Your task to perform on an android device: turn off airplane mode Image 0: 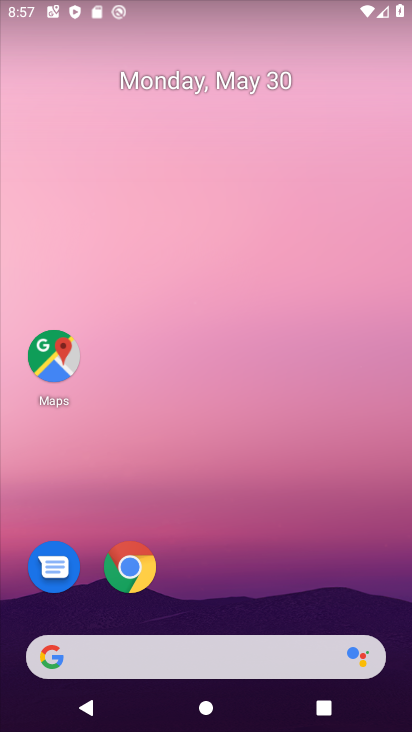
Step 0: drag from (310, 14) to (245, 471)
Your task to perform on an android device: turn off airplane mode Image 1: 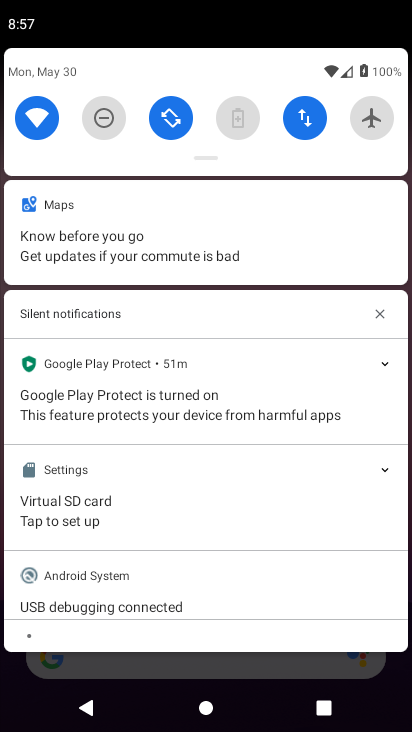
Step 1: task complete